Your task to perform on an android device: Open network settings Image 0: 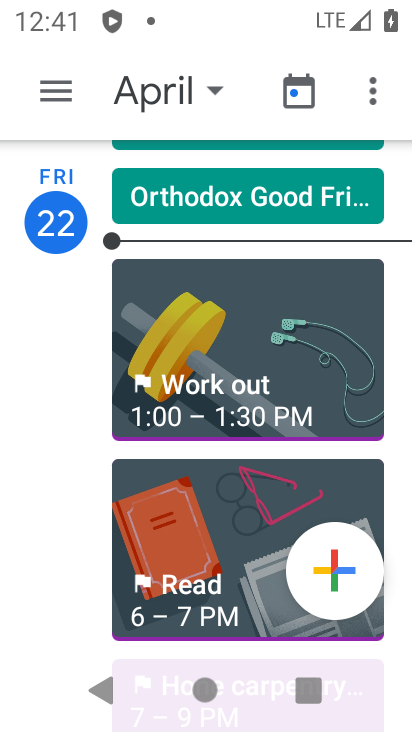
Step 0: click (39, 95)
Your task to perform on an android device: Open network settings Image 1: 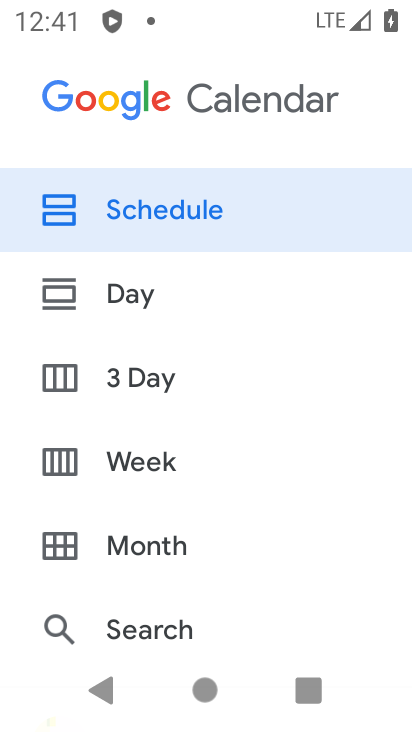
Step 1: press home button
Your task to perform on an android device: Open network settings Image 2: 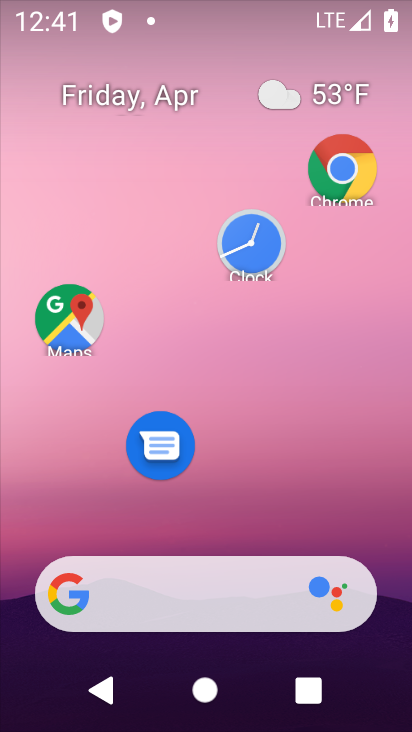
Step 2: drag from (258, 530) to (272, 29)
Your task to perform on an android device: Open network settings Image 3: 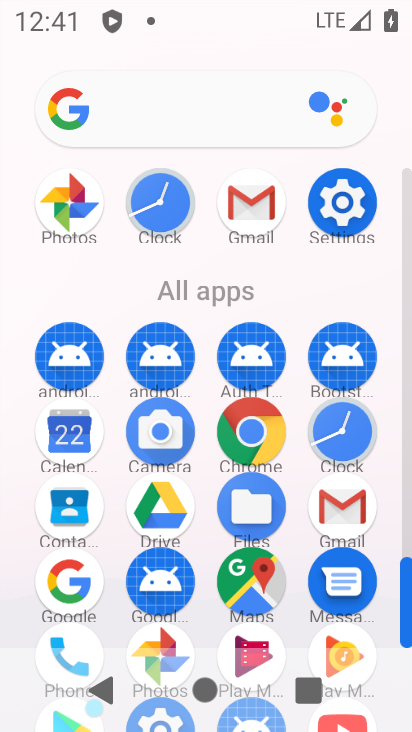
Step 3: click (340, 216)
Your task to perform on an android device: Open network settings Image 4: 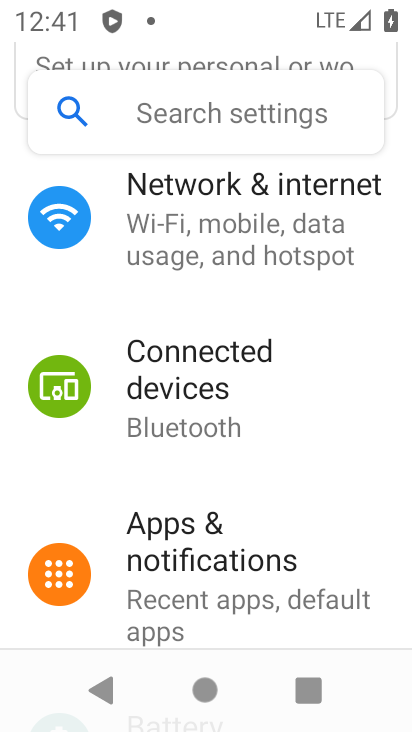
Step 4: click (300, 223)
Your task to perform on an android device: Open network settings Image 5: 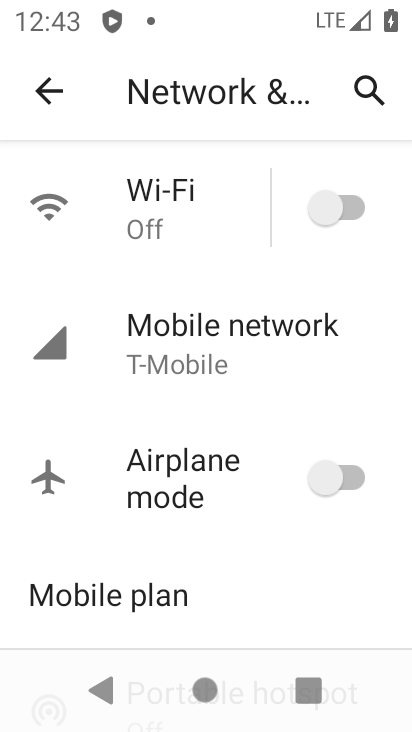
Step 5: task complete